Your task to perform on an android device: Go to location settings Image 0: 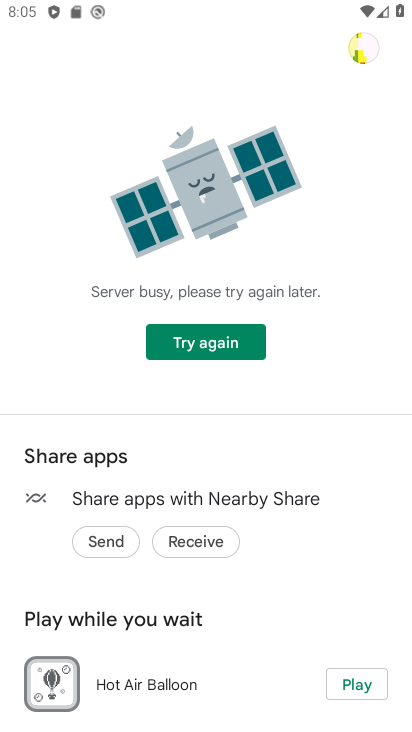
Step 0: press home button
Your task to perform on an android device: Go to location settings Image 1: 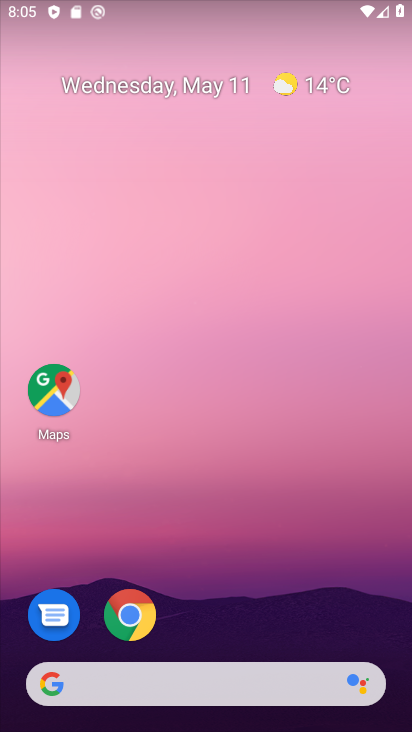
Step 1: drag from (283, 598) to (237, 225)
Your task to perform on an android device: Go to location settings Image 2: 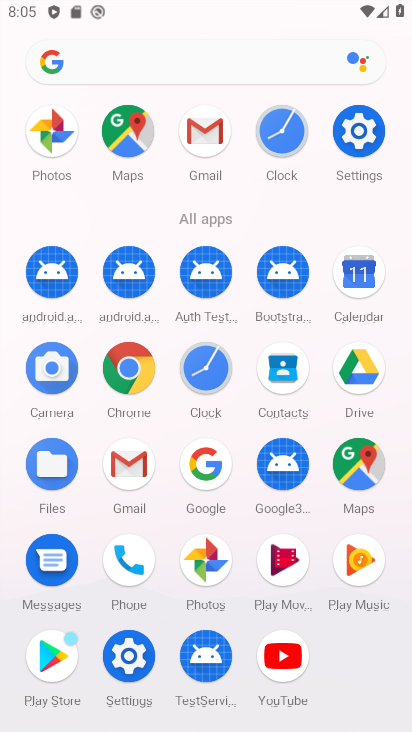
Step 2: click (137, 641)
Your task to perform on an android device: Go to location settings Image 3: 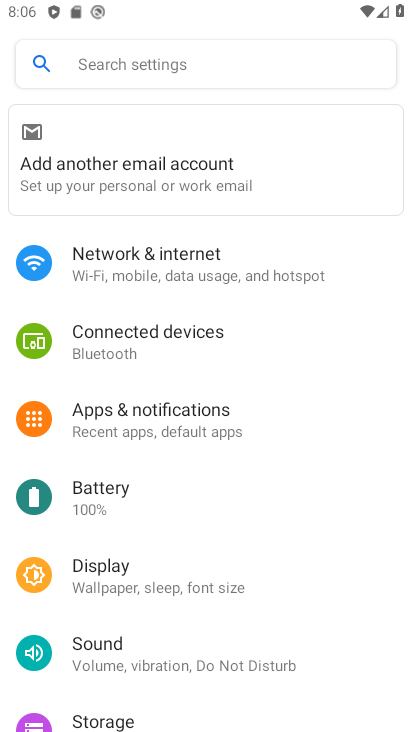
Step 3: drag from (219, 646) to (186, 389)
Your task to perform on an android device: Go to location settings Image 4: 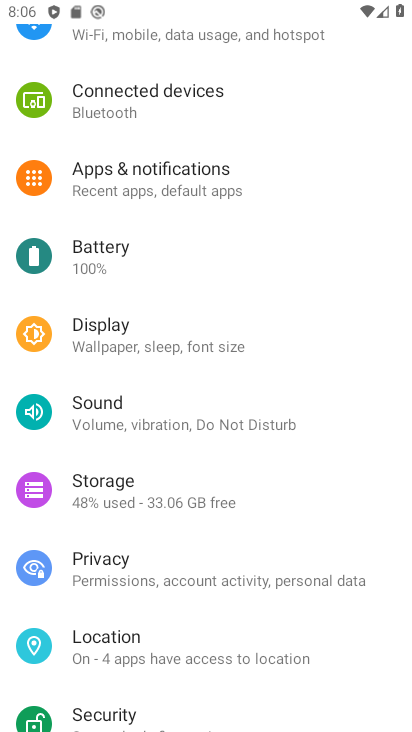
Step 4: click (176, 651)
Your task to perform on an android device: Go to location settings Image 5: 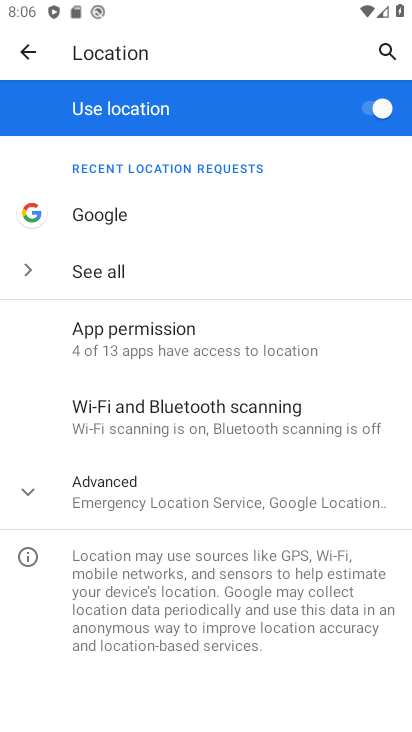
Step 5: task complete